Your task to perform on an android device: Search for usb-a to usb-b on target.com, select the first entry, add it to the cart, then select checkout. Image 0: 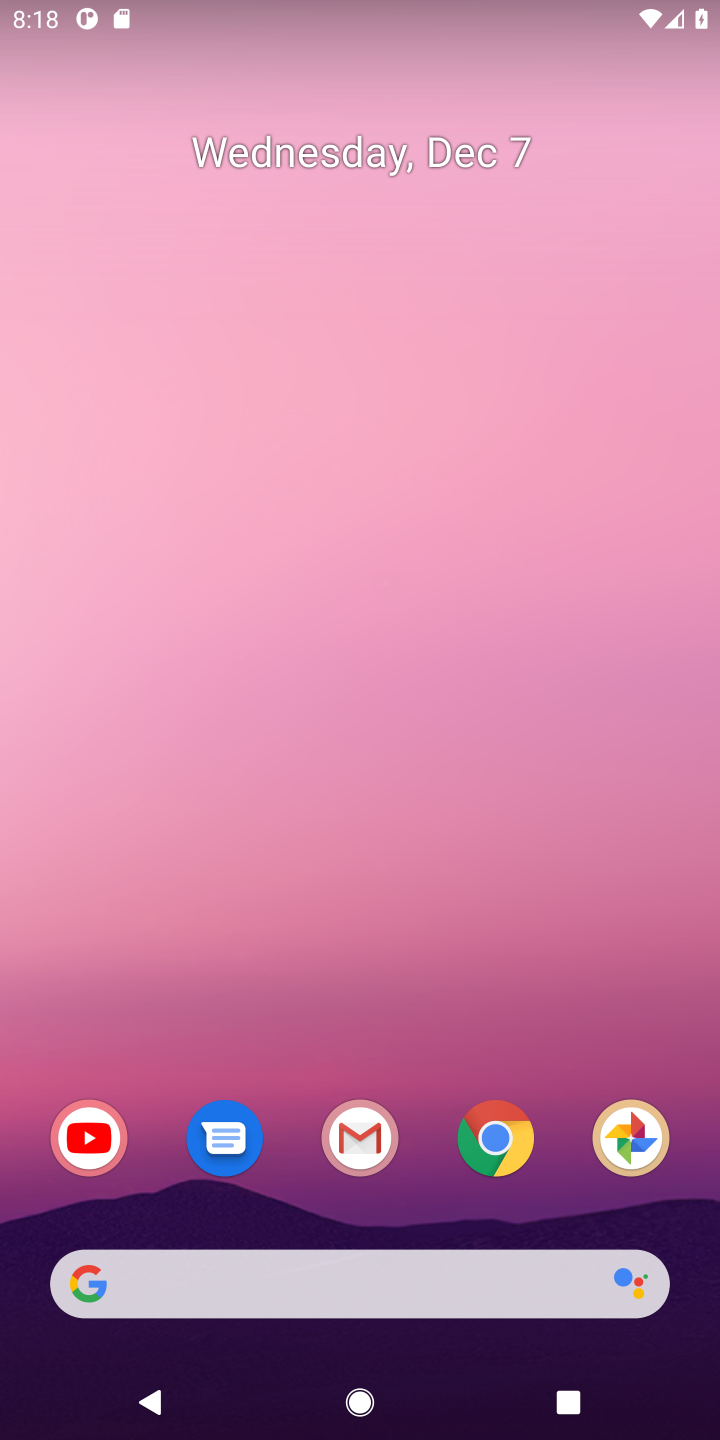
Step 0: press home button
Your task to perform on an android device: Search for usb-a to usb-b on target.com, select the first entry, add it to the cart, then select checkout. Image 1: 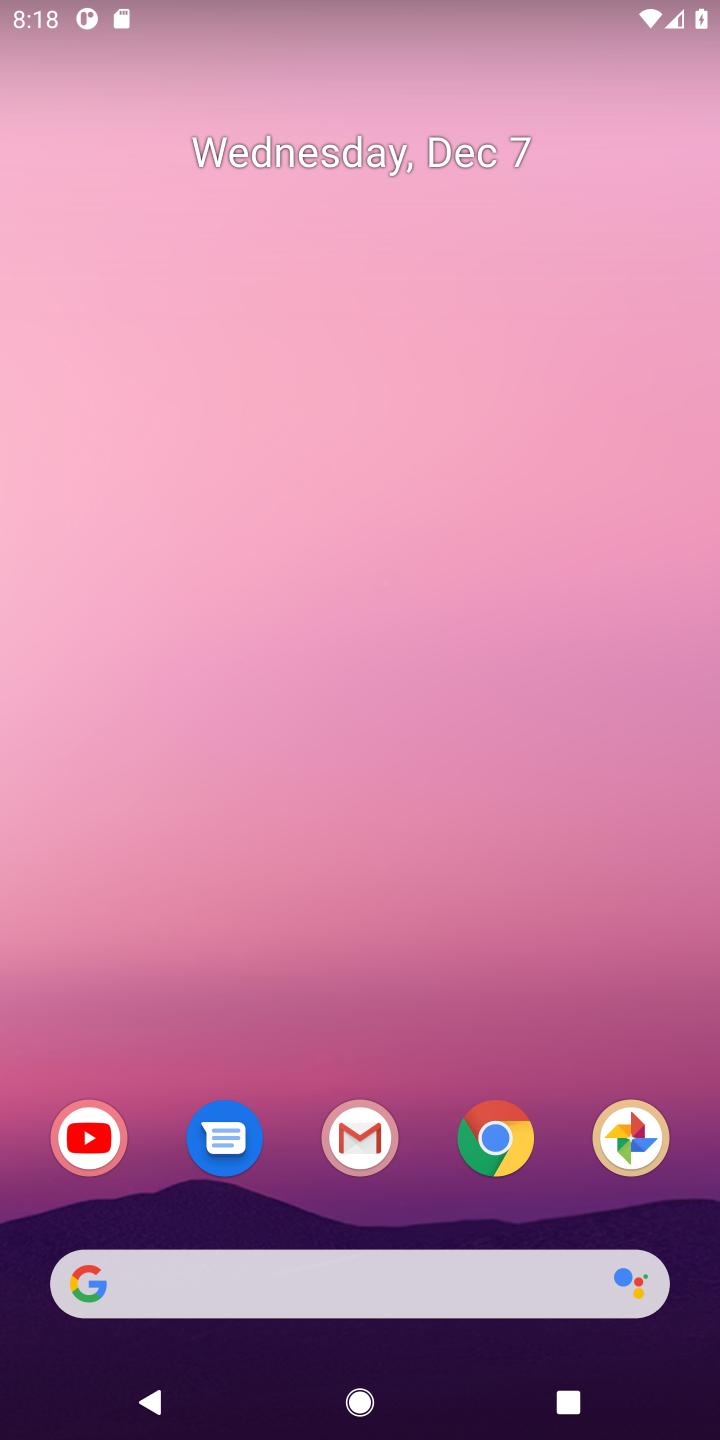
Step 1: click (177, 1288)
Your task to perform on an android device: Search for usb-a to usb-b on target.com, select the first entry, add it to the cart, then select checkout. Image 2: 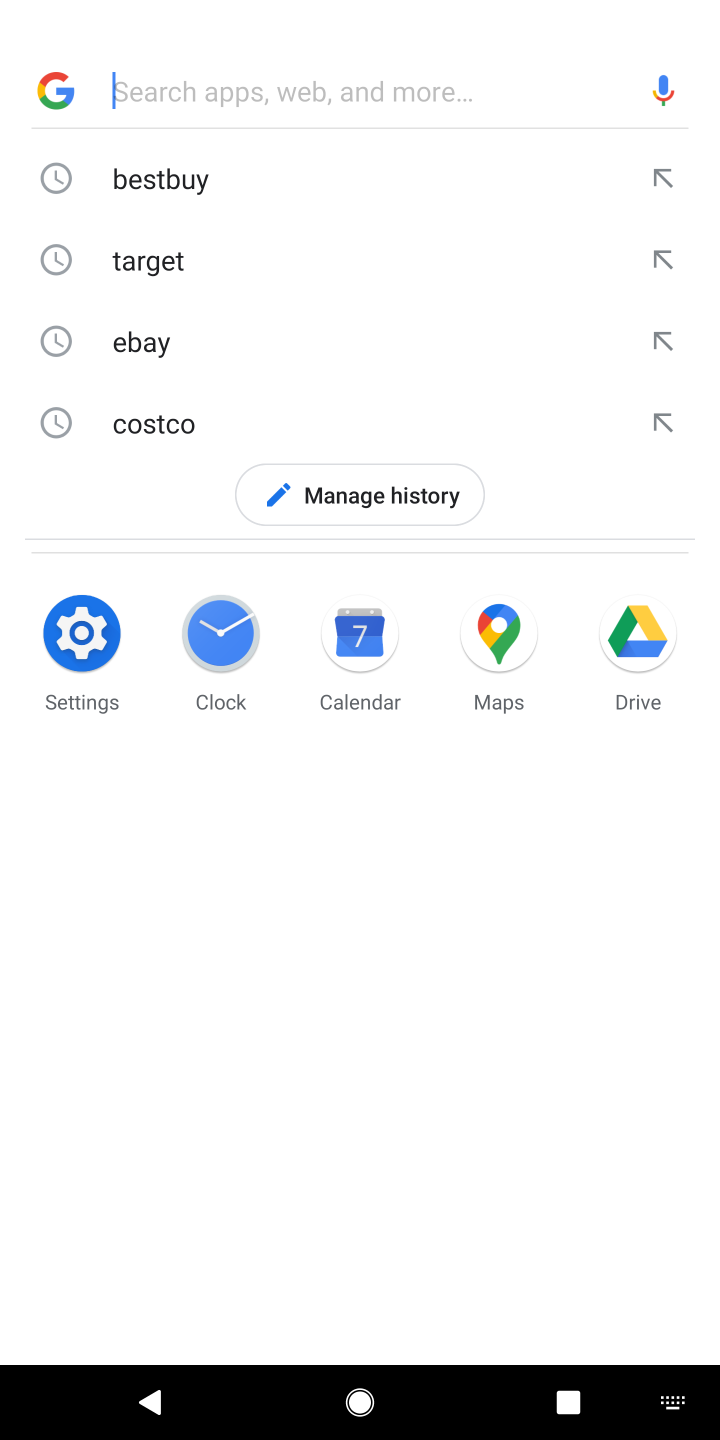
Step 2: type "target.com"
Your task to perform on an android device: Search for usb-a to usb-b on target.com, select the first entry, add it to the cart, then select checkout. Image 3: 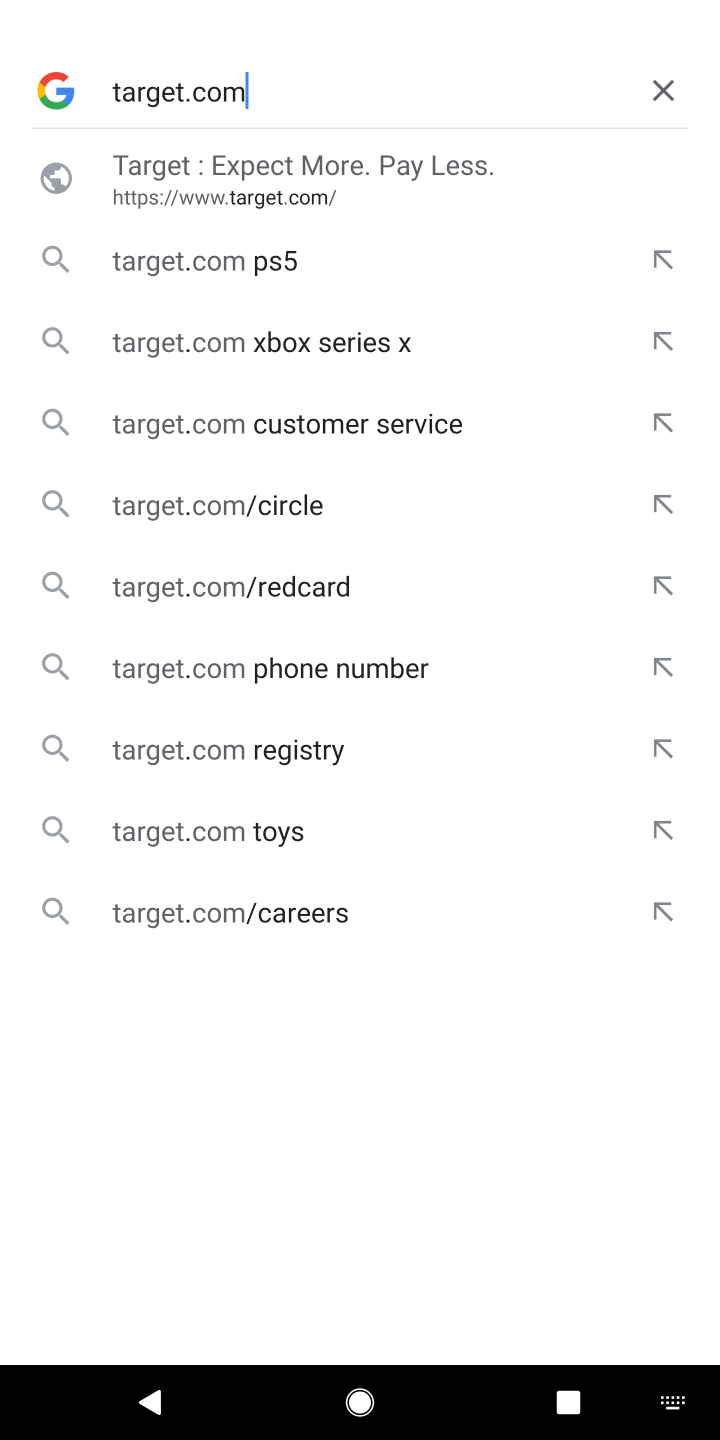
Step 3: press enter
Your task to perform on an android device: Search for usb-a to usb-b on target.com, select the first entry, add it to the cart, then select checkout. Image 4: 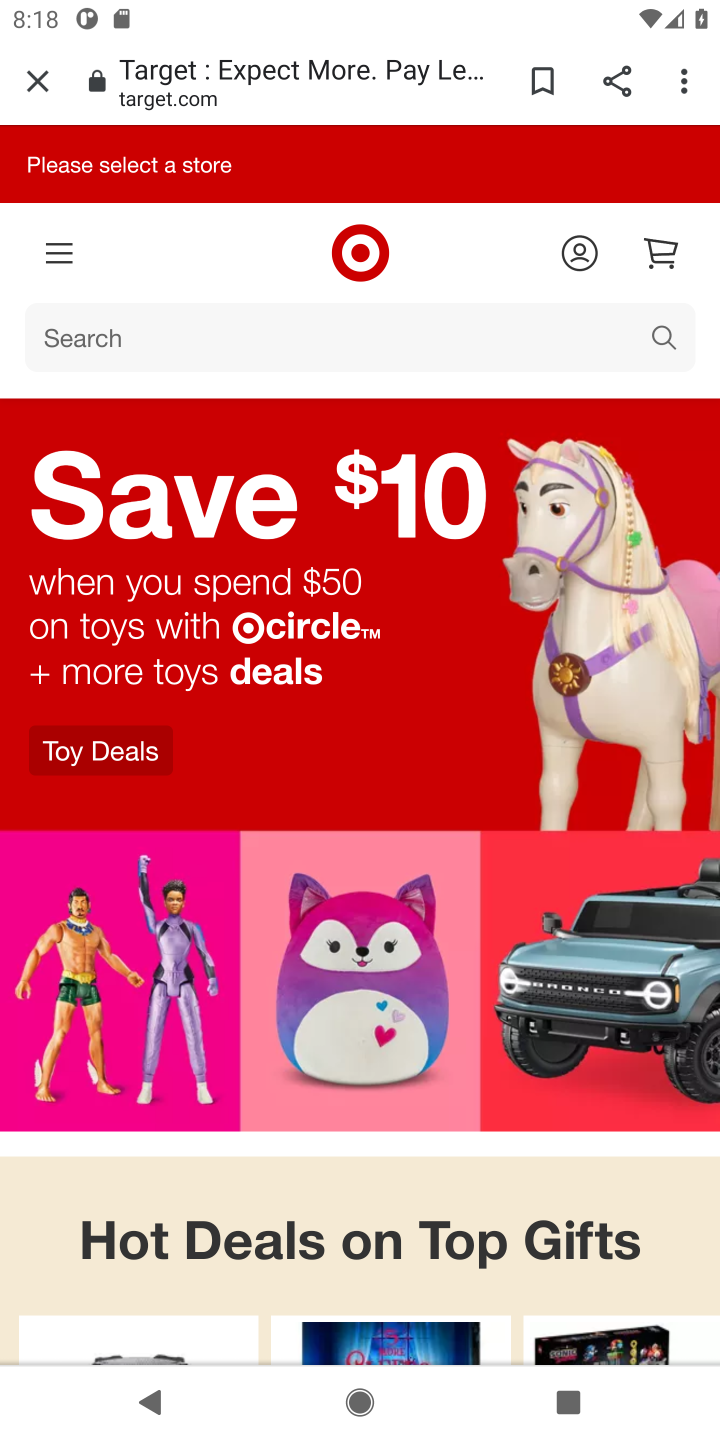
Step 4: click (103, 334)
Your task to perform on an android device: Search for usb-a to usb-b on target.com, select the first entry, add it to the cart, then select checkout. Image 5: 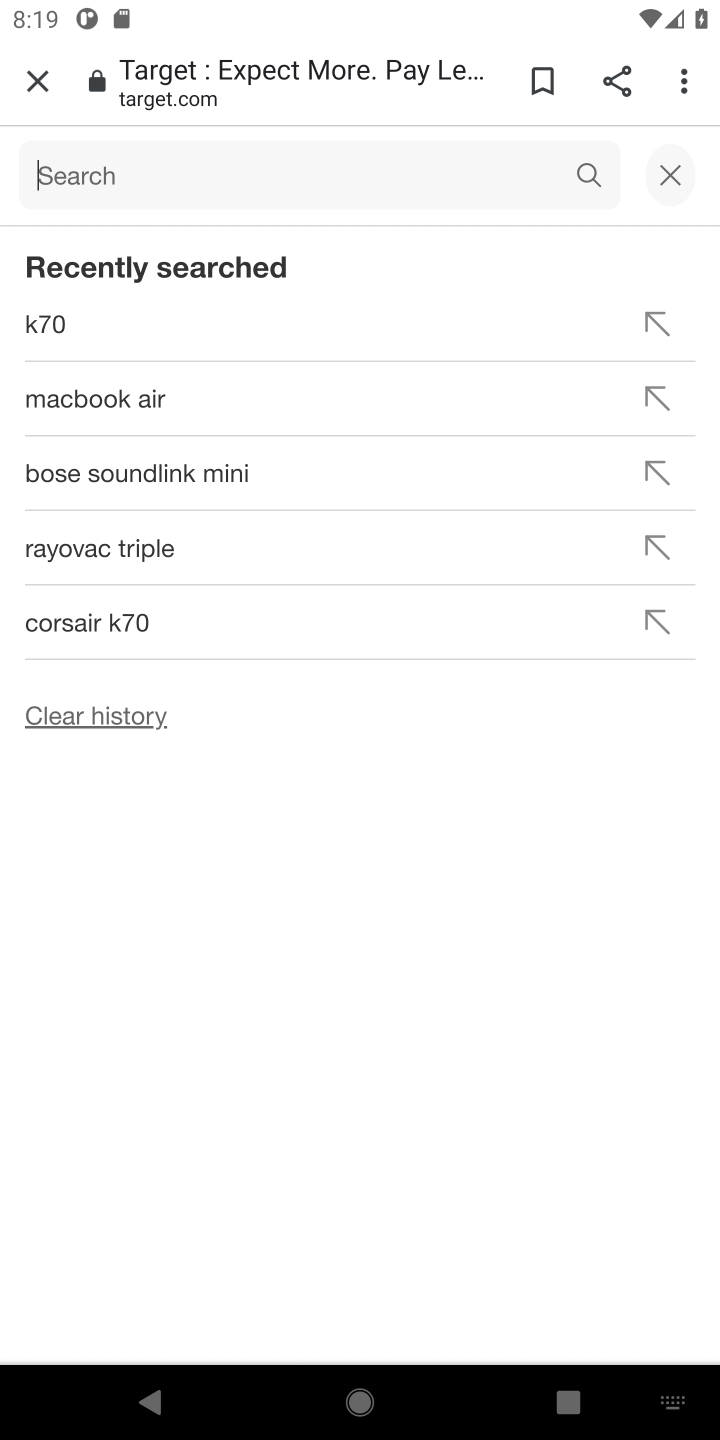
Step 5: type "usb-a to usb-b"
Your task to perform on an android device: Search for usb-a to usb-b on target.com, select the first entry, add it to the cart, then select checkout. Image 6: 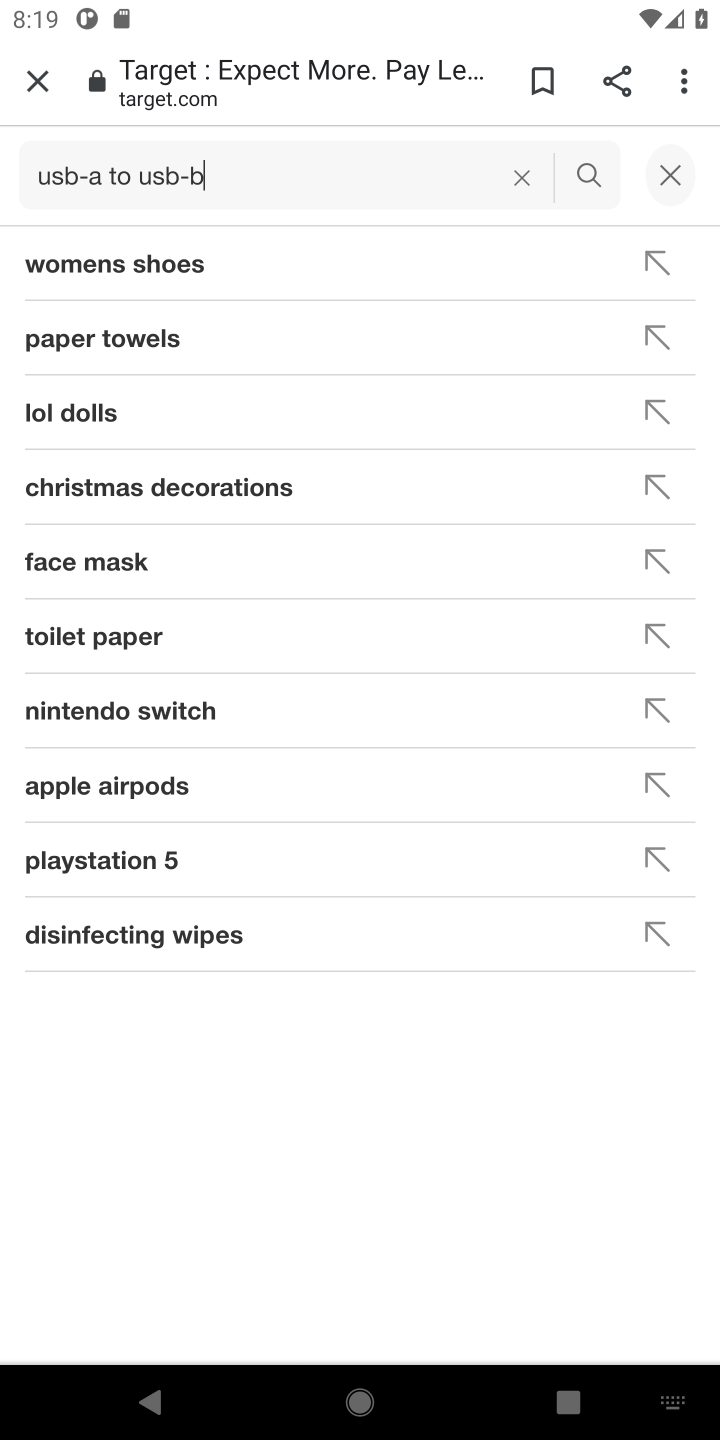
Step 6: press enter
Your task to perform on an android device: Search for usb-a to usb-b on target.com, select the first entry, add it to the cart, then select checkout. Image 7: 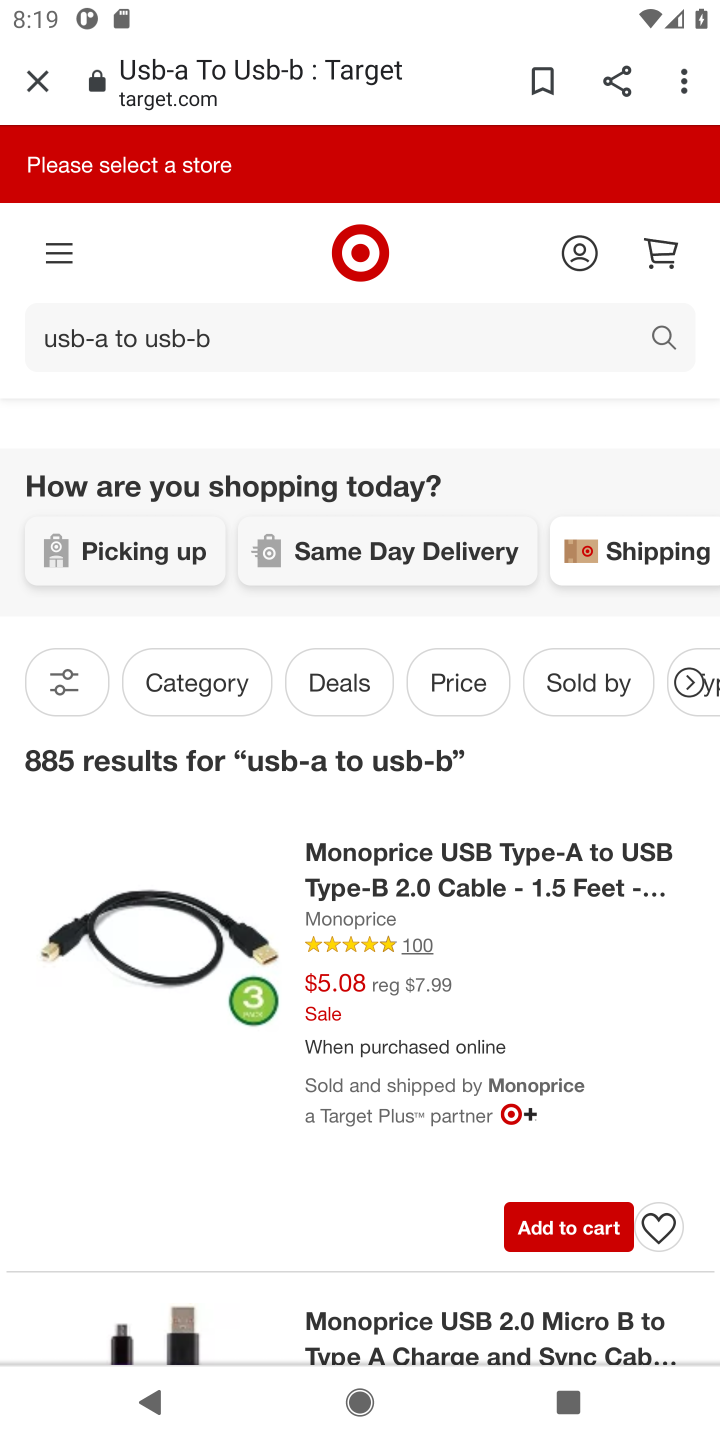
Step 7: click (556, 1235)
Your task to perform on an android device: Search for usb-a to usb-b on target.com, select the first entry, add it to the cart, then select checkout. Image 8: 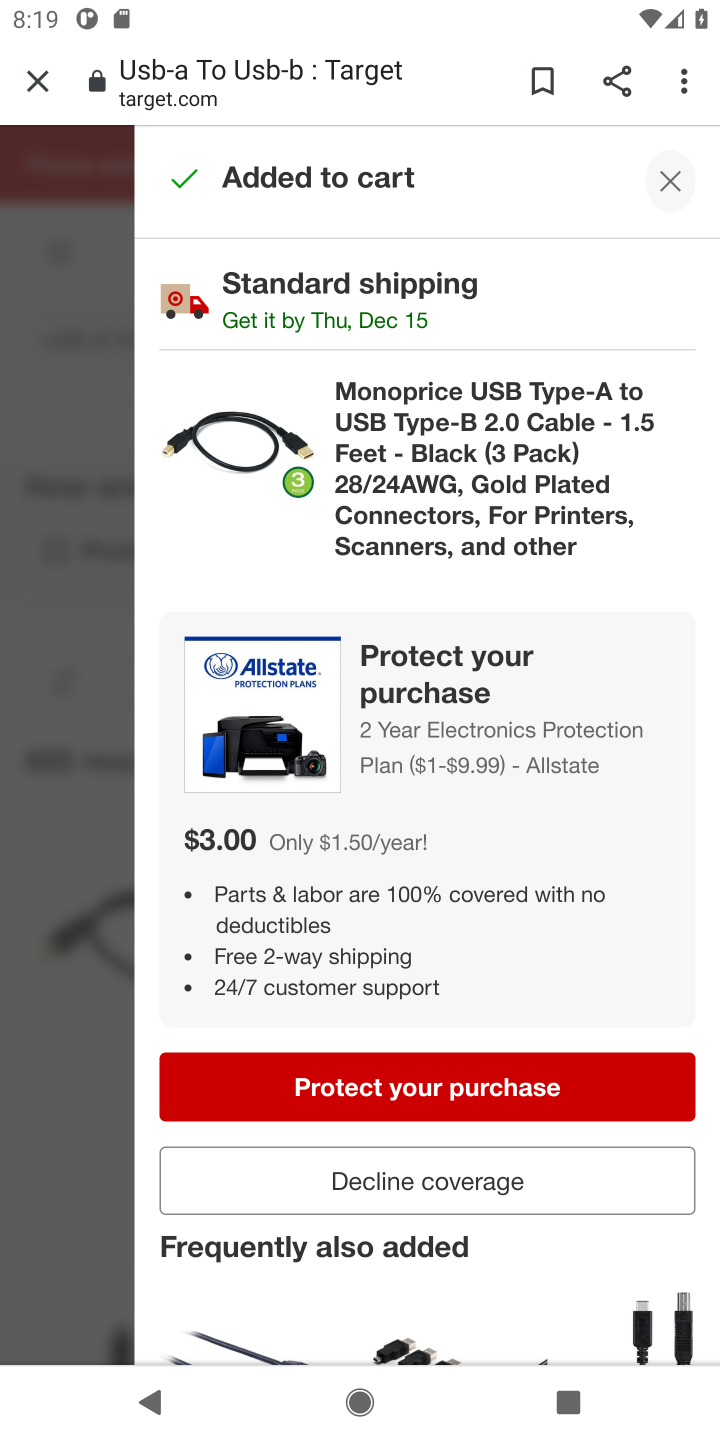
Step 8: click (420, 1180)
Your task to perform on an android device: Search for usb-a to usb-b on target.com, select the first entry, add it to the cart, then select checkout. Image 9: 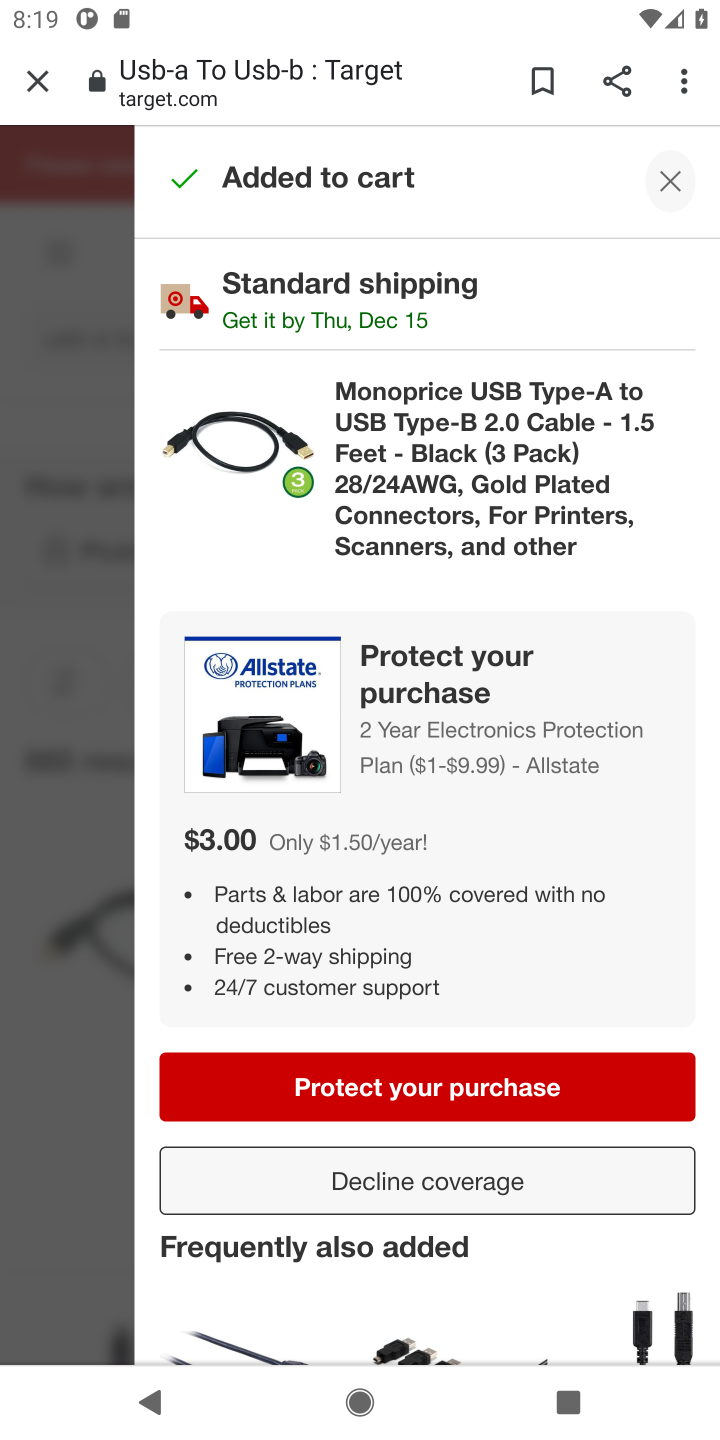
Step 9: click (414, 1174)
Your task to perform on an android device: Search for usb-a to usb-b on target.com, select the first entry, add it to the cart, then select checkout. Image 10: 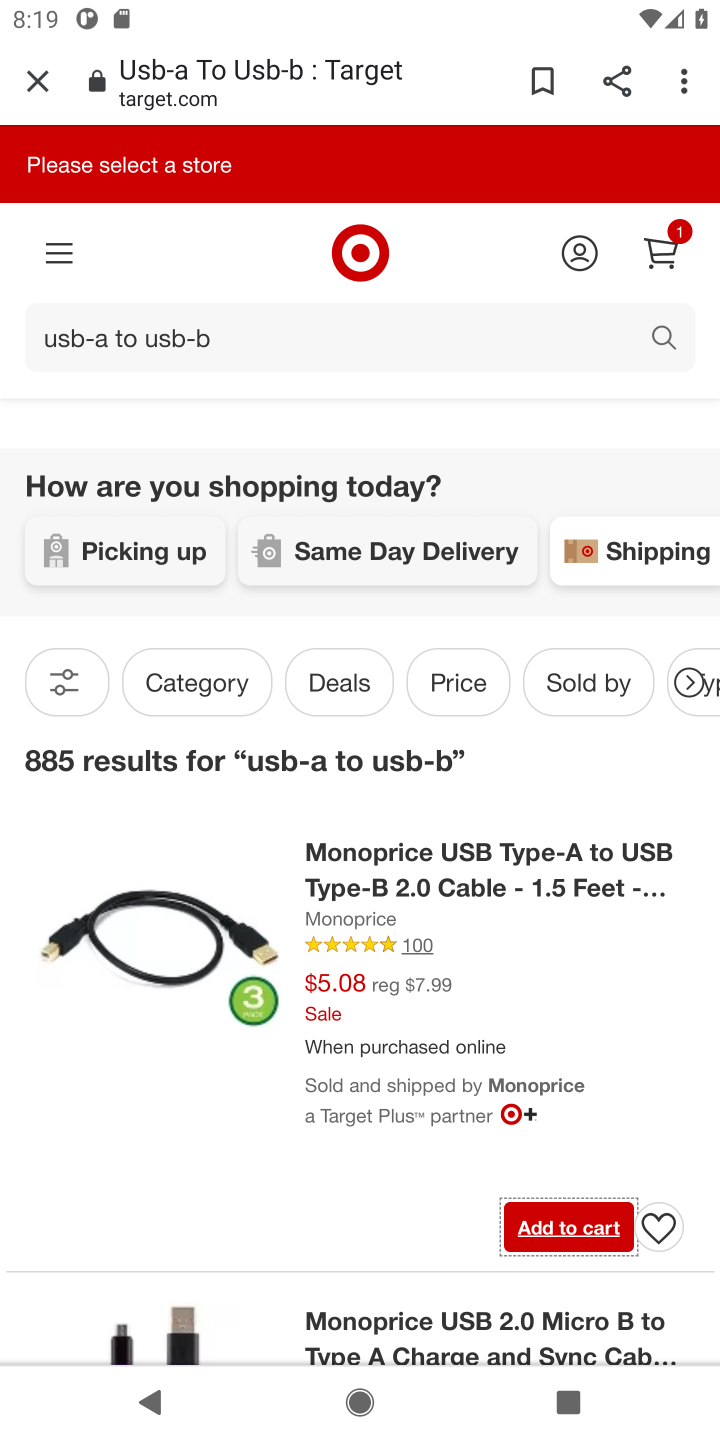
Step 10: click (661, 246)
Your task to perform on an android device: Search for usb-a to usb-b on target.com, select the first entry, add it to the cart, then select checkout. Image 11: 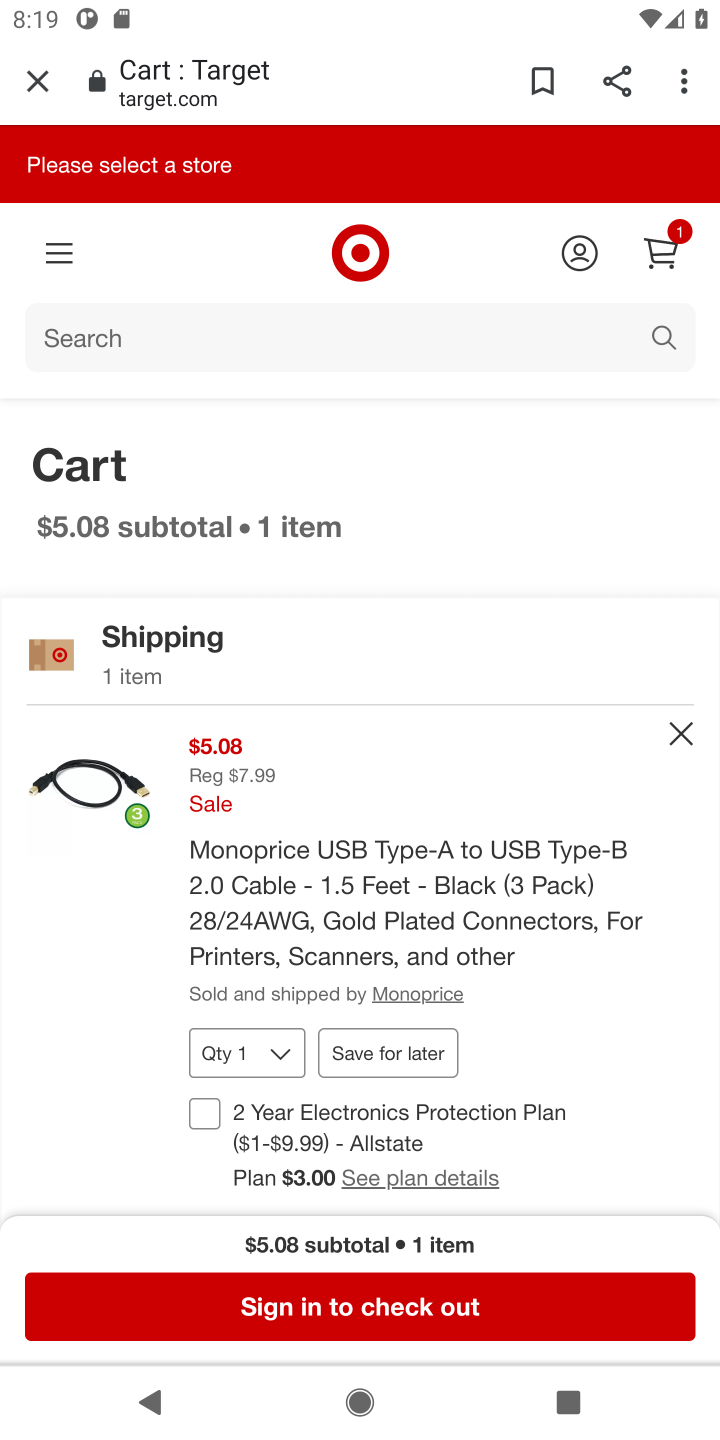
Step 11: click (310, 1308)
Your task to perform on an android device: Search for usb-a to usb-b on target.com, select the first entry, add it to the cart, then select checkout. Image 12: 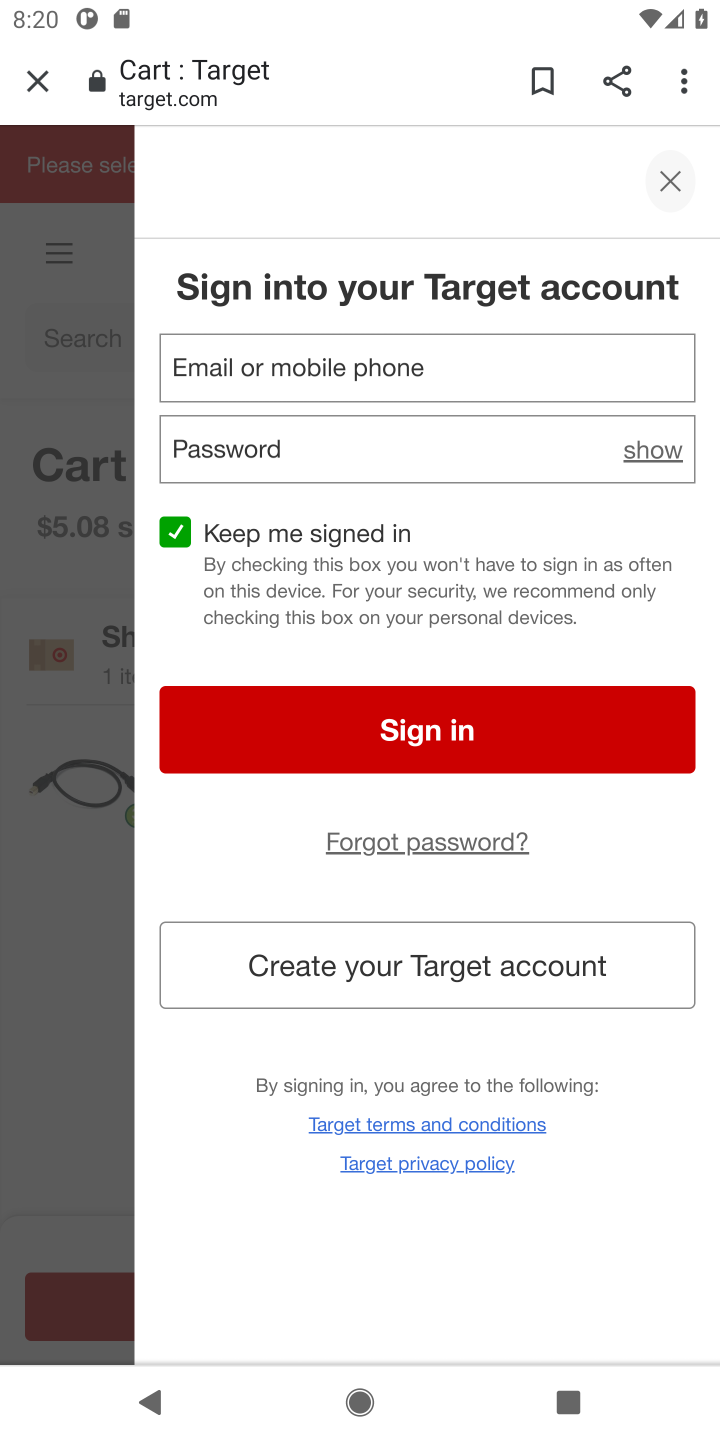
Step 12: task complete